Your task to perform on an android device: Open internet settings Image 0: 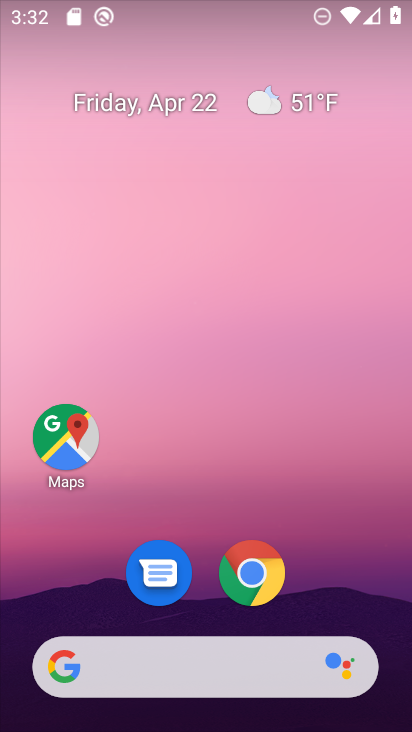
Step 0: drag from (302, 586) to (285, 34)
Your task to perform on an android device: Open internet settings Image 1: 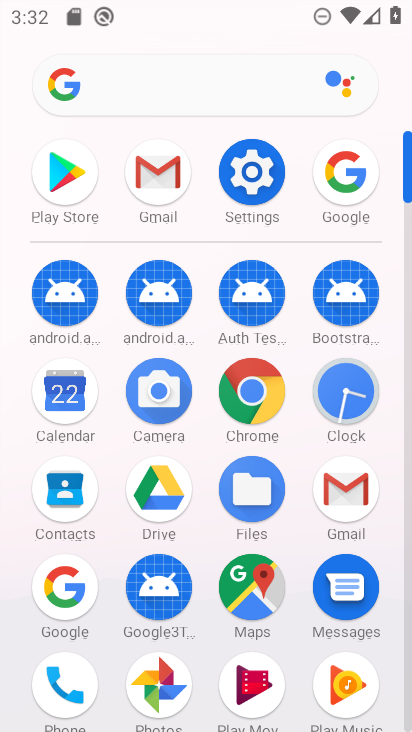
Step 1: click (271, 165)
Your task to perform on an android device: Open internet settings Image 2: 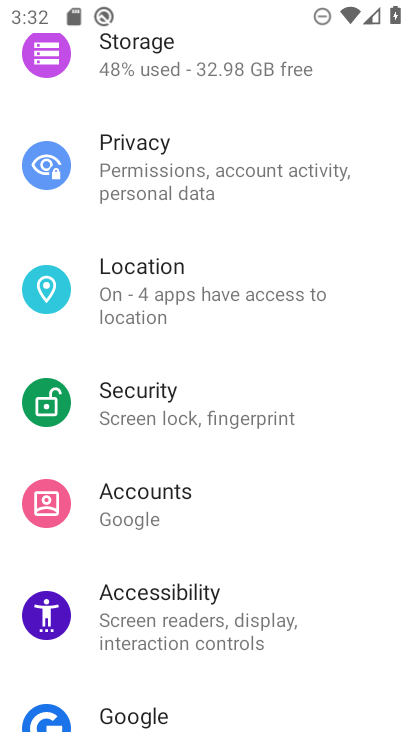
Step 2: drag from (285, 180) to (297, 624)
Your task to perform on an android device: Open internet settings Image 3: 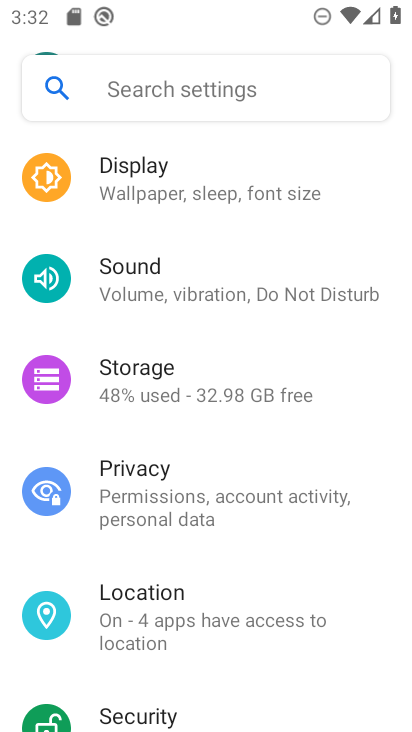
Step 3: drag from (310, 141) to (321, 639)
Your task to perform on an android device: Open internet settings Image 4: 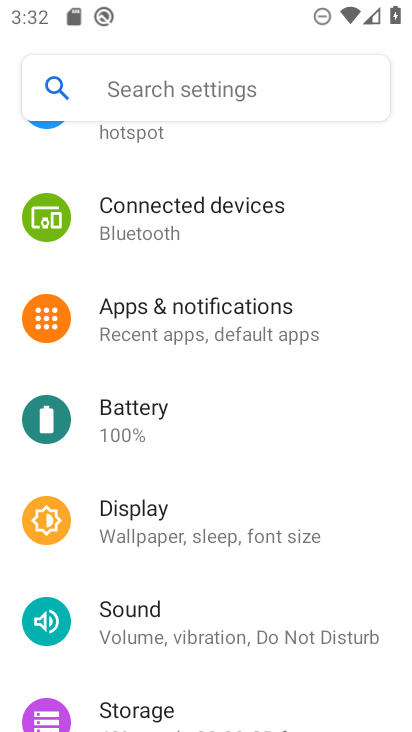
Step 4: drag from (323, 154) to (297, 625)
Your task to perform on an android device: Open internet settings Image 5: 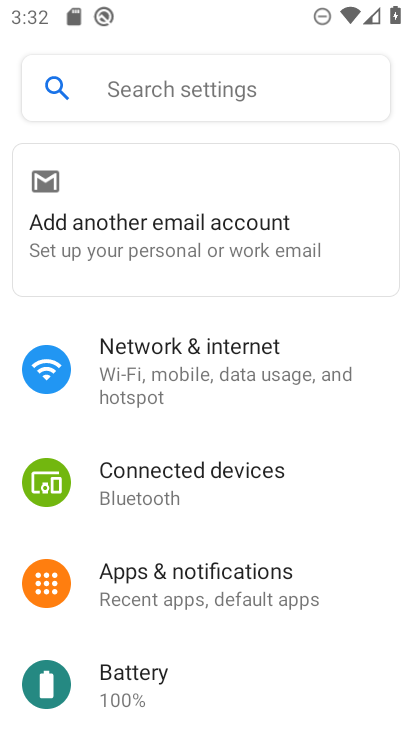
Step 5: click (284, 348)
Your task to perform on an android device: Open internet settings Image 6: 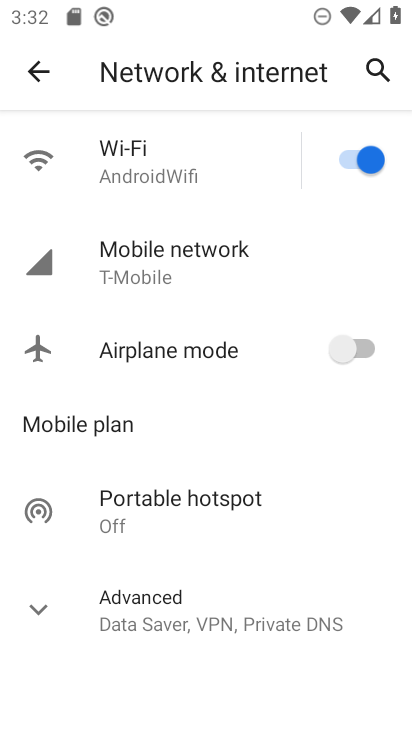
Step 6: click (217, 256)
Your task to perform on an android device: Open internet settings Image 7: 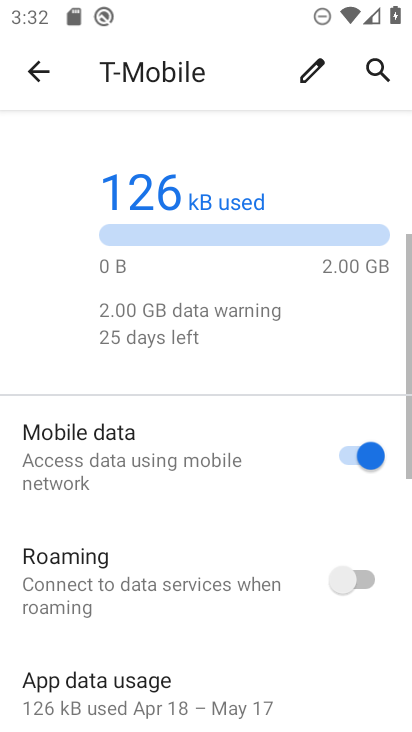
Step 7: task complete